Your task to perform on an android device: Check the weather Image 0: 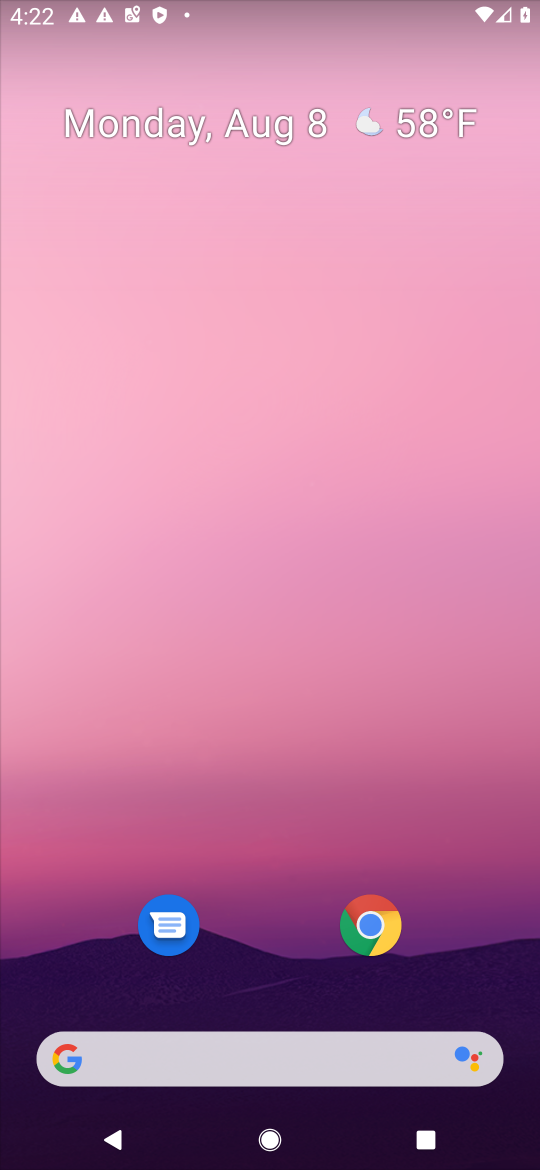
Step 0: drag from (249, 912) to (172, 158)
Your task to perform on an android device: Check the weather Image 1: 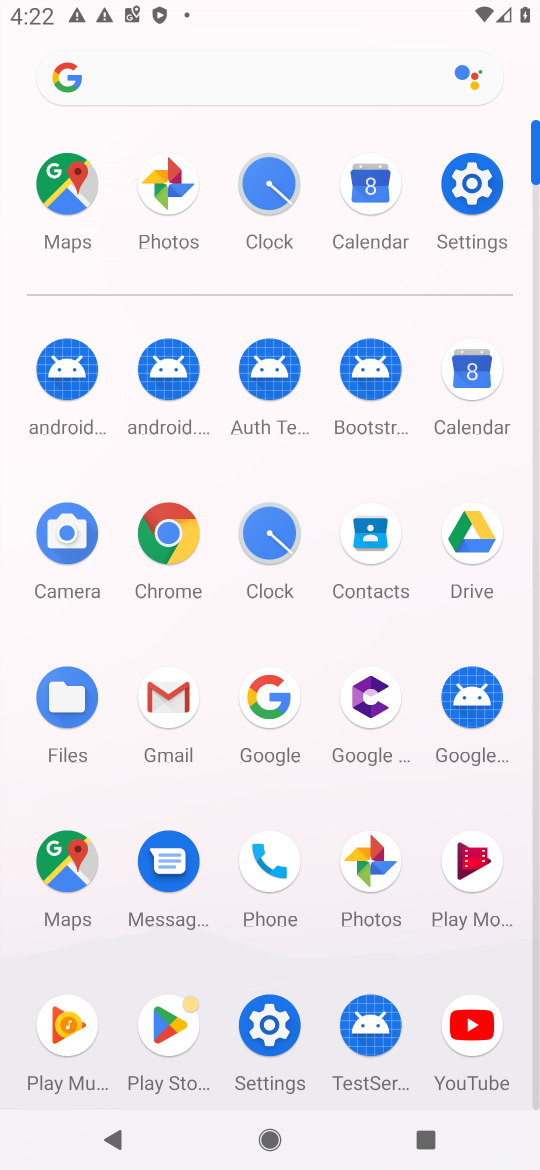
Step 1: click (277, 692)
Your task to perform on an android device: Check the weather Image 2: 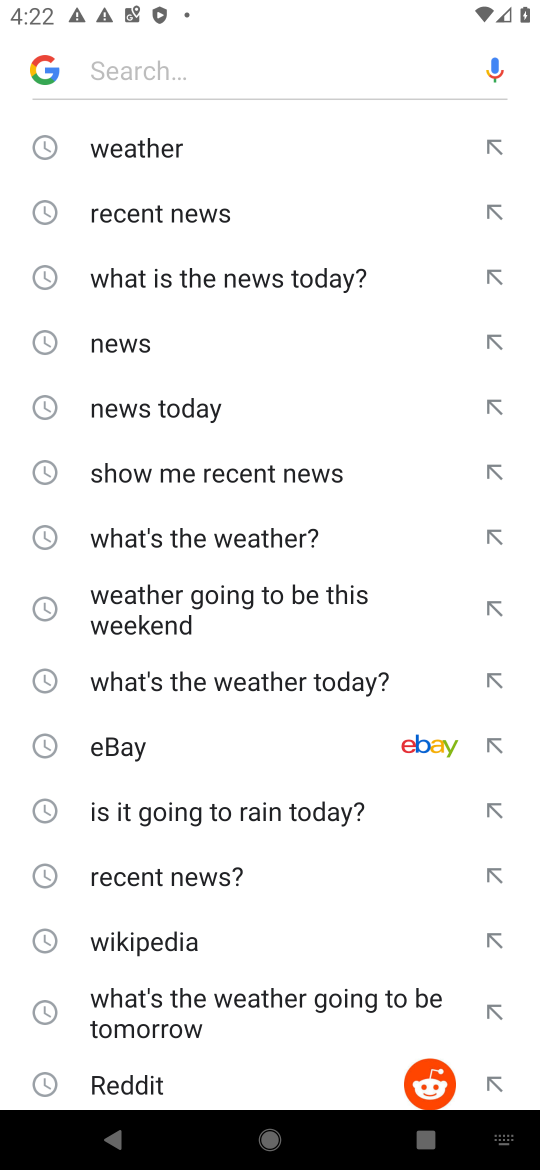
Step 2: click (120, 145)
Your task to perform on an android device: Check the weather Image 3: 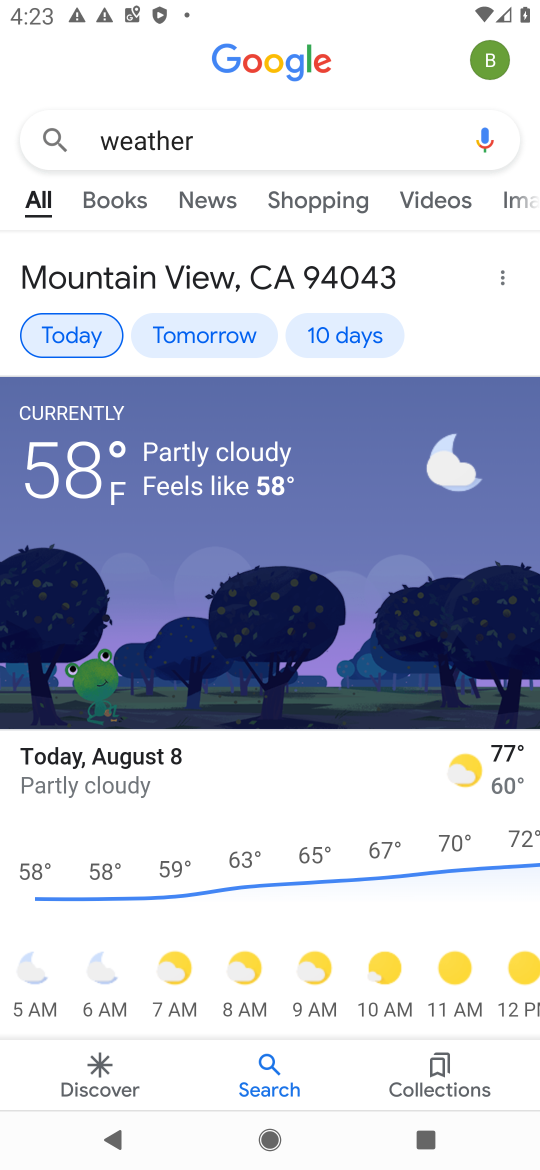
Step 3: click (81, 322)
Your task to perform on an android device: Check the weather Image 4: 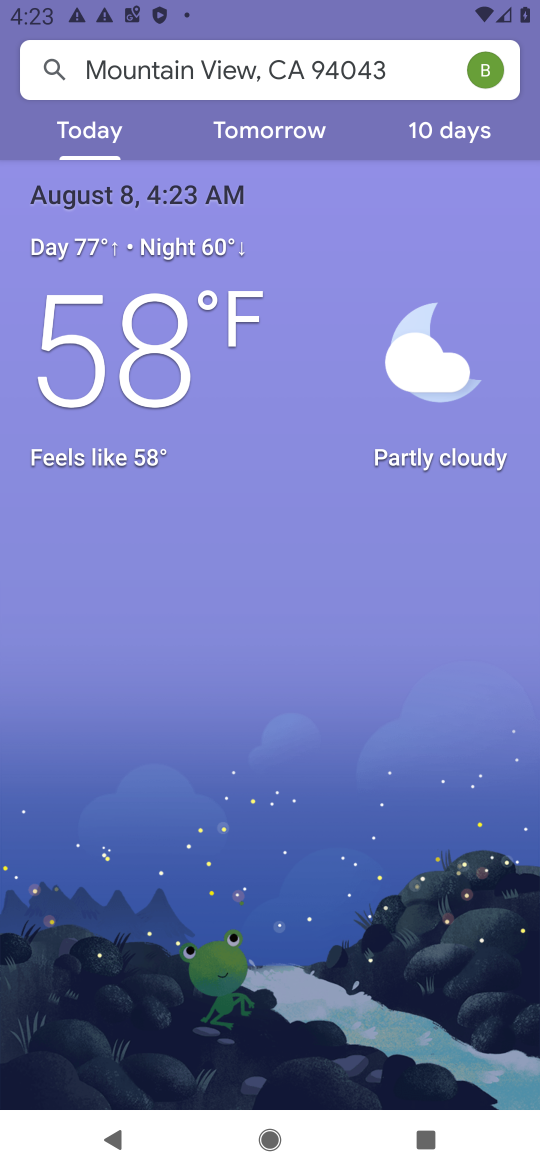
Step 4: task complete